Your task to perform on an android device: Go to accessibility settings Image 0: 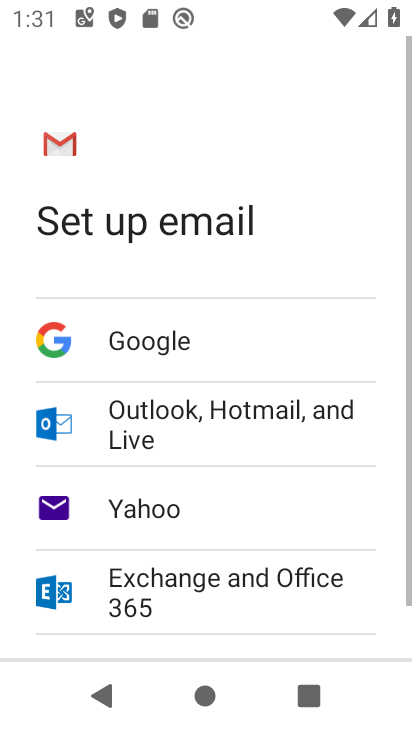
Step 0: press home button
Your task to perform on an android device: Go to accessibility settings Image 1: 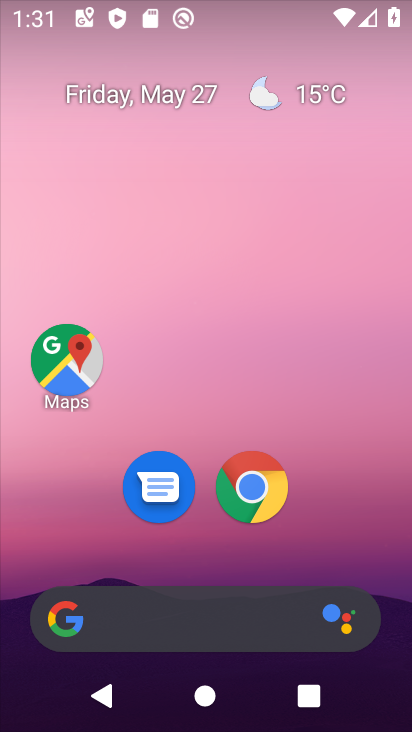
Step 1: drag from (247, 542) to (327, 188)
Your task to perform on an android device: Go to accessibility settings Image 2: 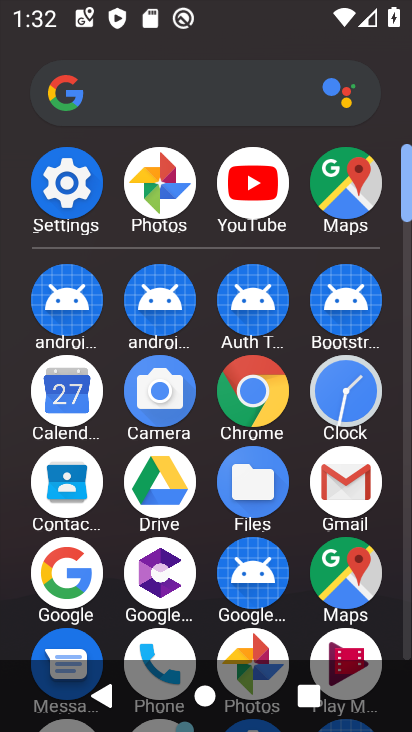
Step 2: click (35, 174)
Your task to perform on an android device: Go to accessibility settings Image 3: 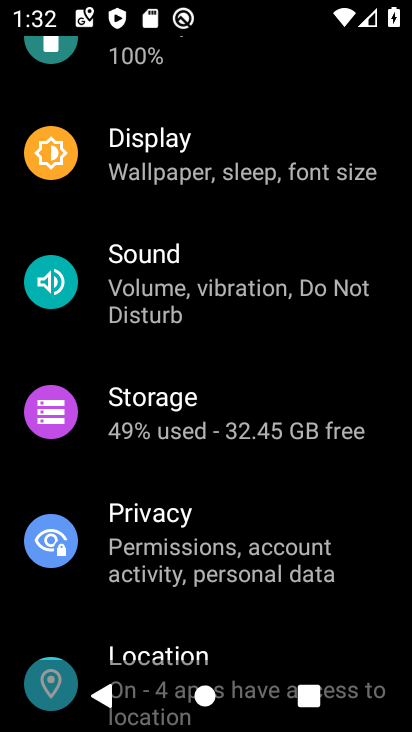
Step 3: drag from (209, 621) to (263, 298)
Your task to perform on an android device: Go to accessibility settings Image 4: 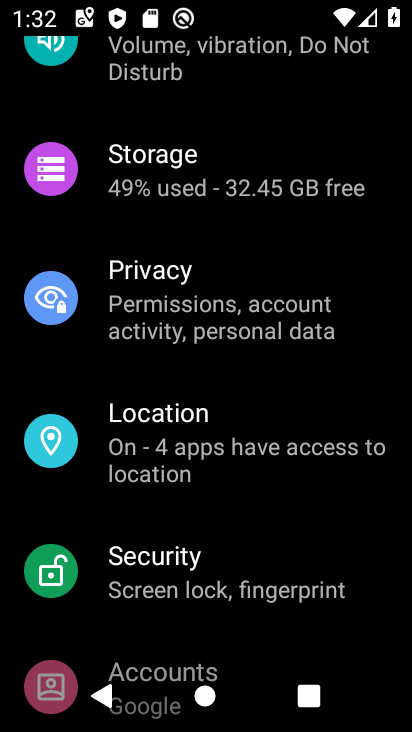
Step 4: drag from (170, 636) to (296, 125)
Your task to perform on an android device: Go to accessibility settings Image 5: 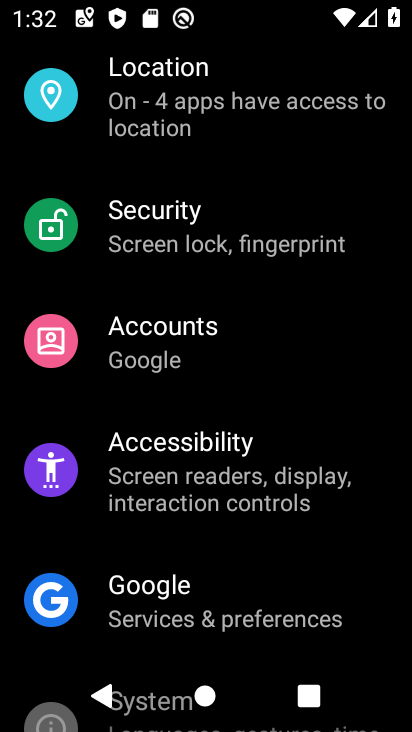
Step 5: click (149, 487)
Your task to perform on an android device: Go to accessibility settings Image 6: 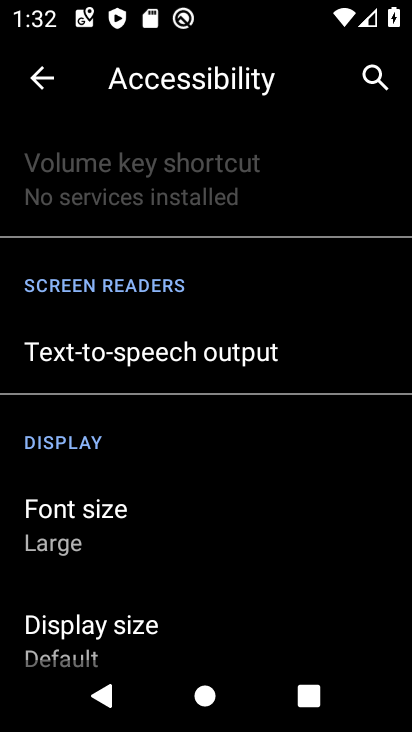
Step 6: task complete